Your task to perform on an android device: turn off notifications settings in the gmail app Image 0: 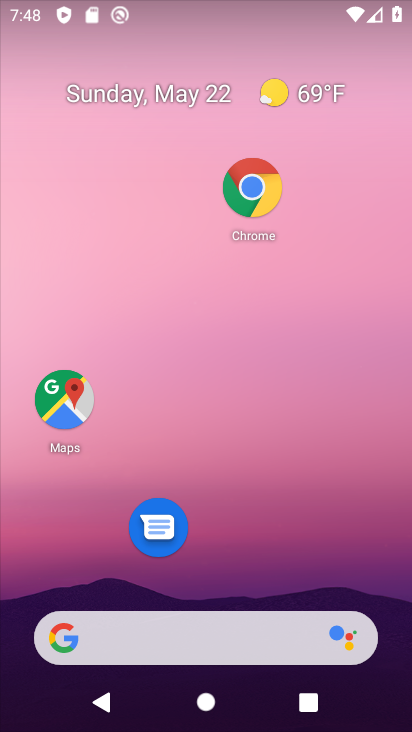
Step 0: drag from (237, 550) to (297, 6)
Your task to perform on an android device: turn off notifications settings in the gmail app Image 1: 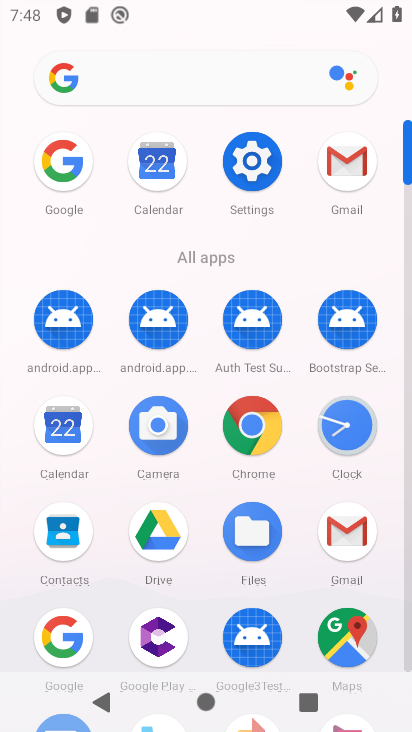
Step 1: click (344, 156)
Your task to perform on an android device: turn off notifications settings in the gmail app Image 2: 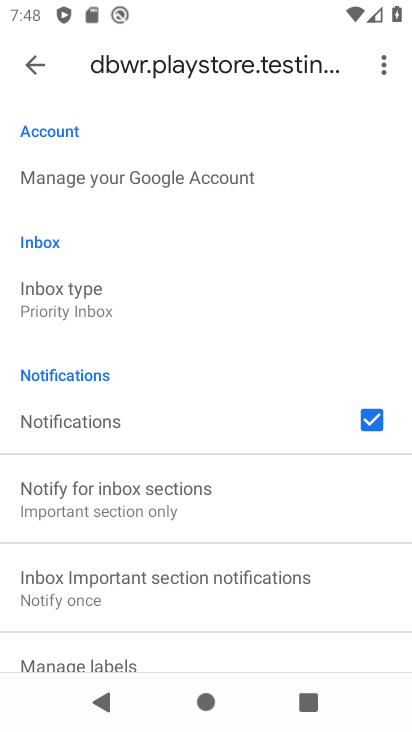
Step 2: click (31, 71)
Your task to perform on an android device: turn off notifications settings in the gmail app Image 3: 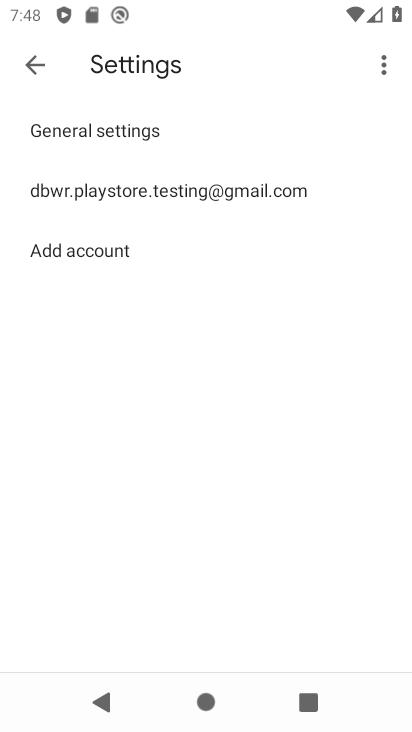
Step 3: click (149, 136)
Your task to perform on an android device: turn off notifications settings in the gmail app Image 4: 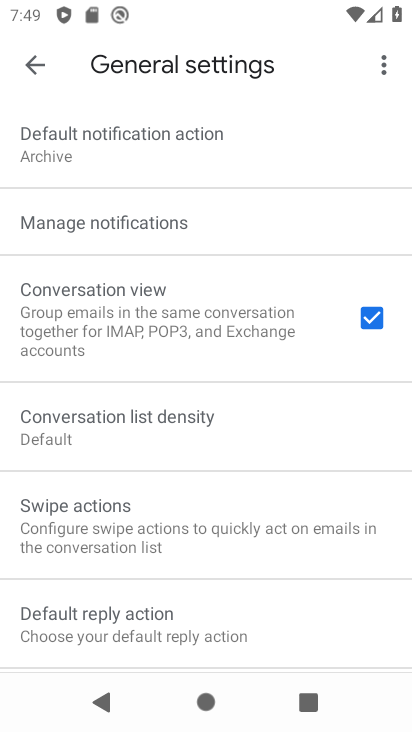
Step 4: click (197, 219)
Your task to perform on an android device: turn off notifications settings in the gmail app Image 5: 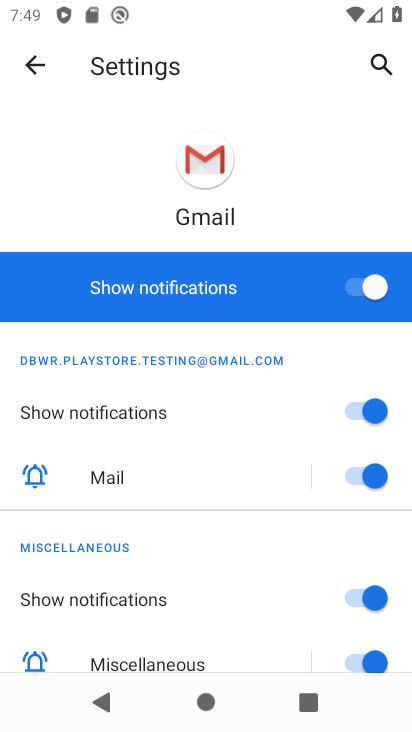
Step 5: click (358, 285)
Your task to perform on an android device: turn off notifications settings in the gmail app Image 6: 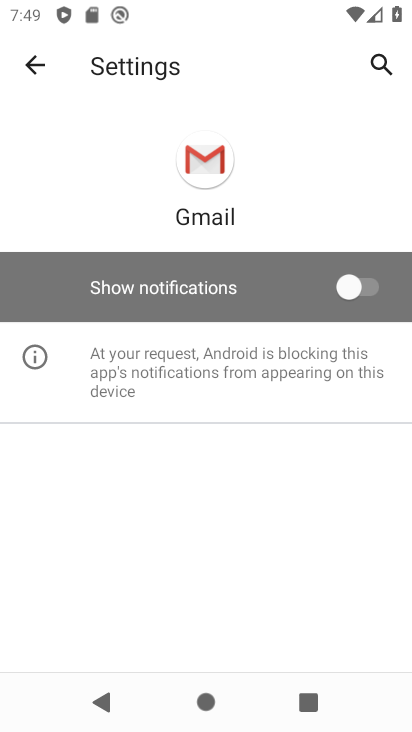
Step 6: task complete